Your task to perform on an android device: What's on my calendar today? Image 0: 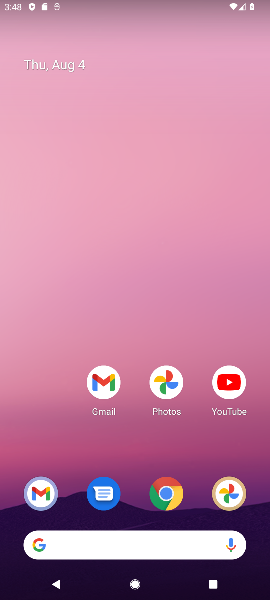
Step 0: drag from (143, 479) to (198, 286)
Your task to perform on an android device: What's on my calendar today? Image 1: 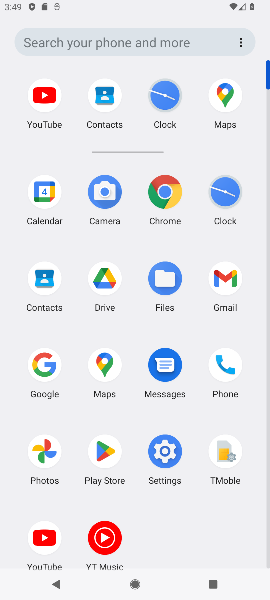
Step 1: click (47, 193)
Your task to perform on an android device: What's on my calendar today? Image 2: 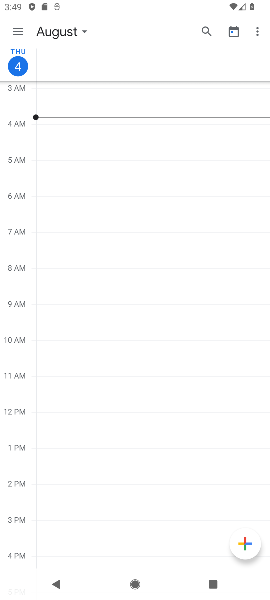
Step 2: click (57, 26)
Your task to perform on an android device: What's on my calendar today? Image 3: 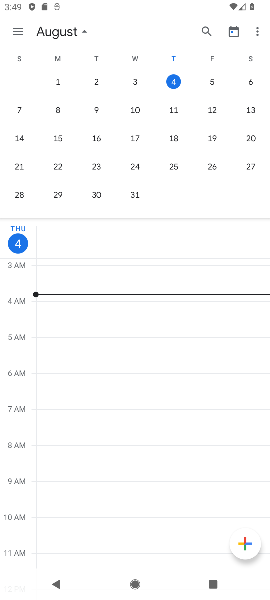
Step 3: click (168, 81)
Your task to perform on an android device: What's on my calendar today? Image 4: 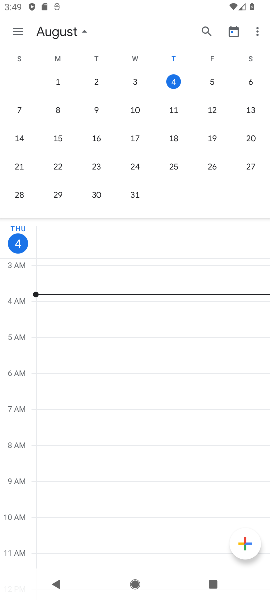
Step 4: task complete